Your task to perform on an android device: toggle translation in the chrome app Image 0: 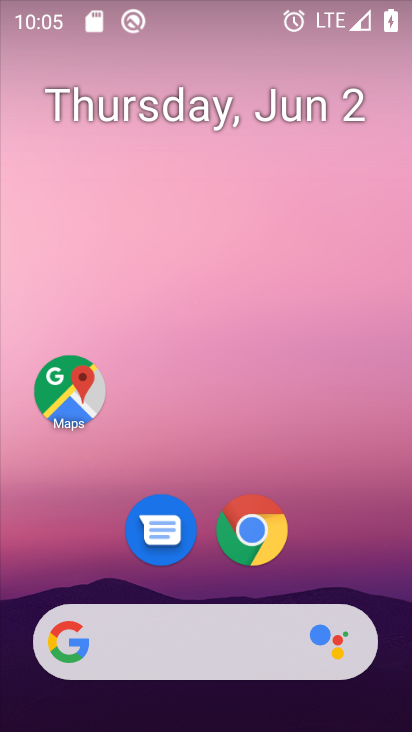
Step 0: click (247, 538)
Your task to perform on an android device: toggle translation in the chrome app Image 1: 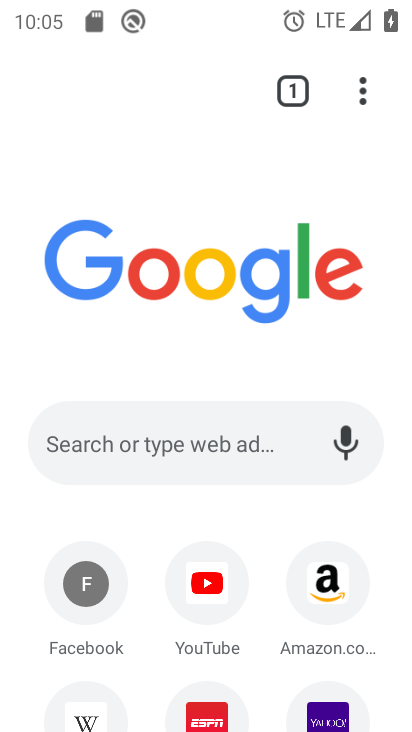
Step 1: click (368, 89)
Your task to perform on an android device: toggle translation in the chrome app Image 2: 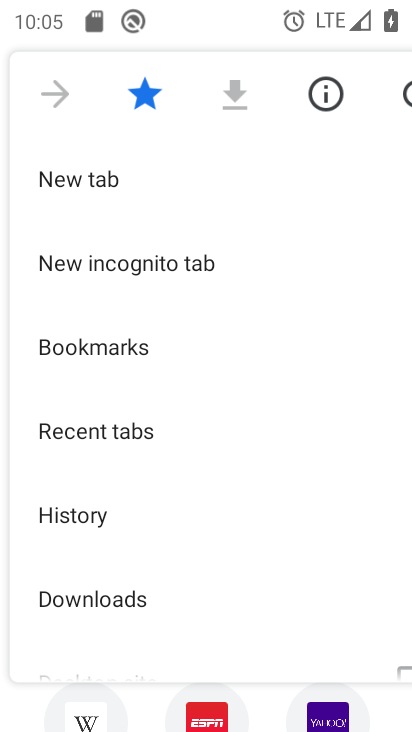
Step 2: drag from (162, 643) to (141, 189)
Your task to perform on an android device: toggle translation in the chrome app Image 3: 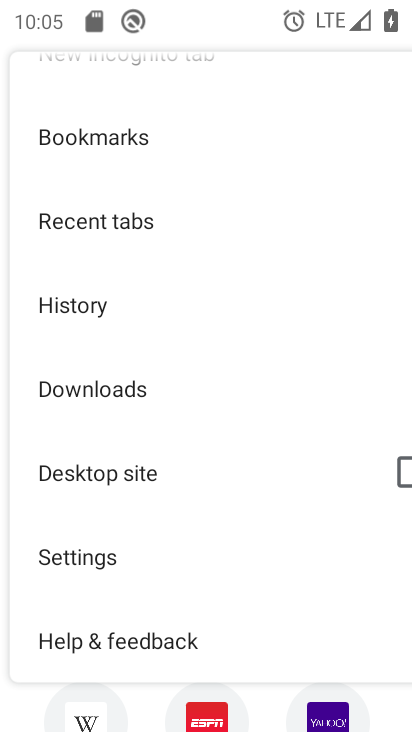
Step 3: click (105, 553)
Your task to perform on an android device: toggle translation in the chrome app Image 4: 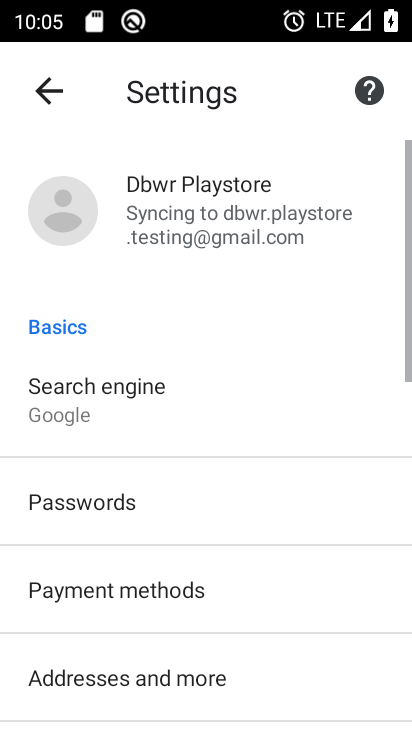
Step 4: drag from (131, 676) to (118, 262)
Your task to perform on an android device: toggle translation in the chrome app Image 5: 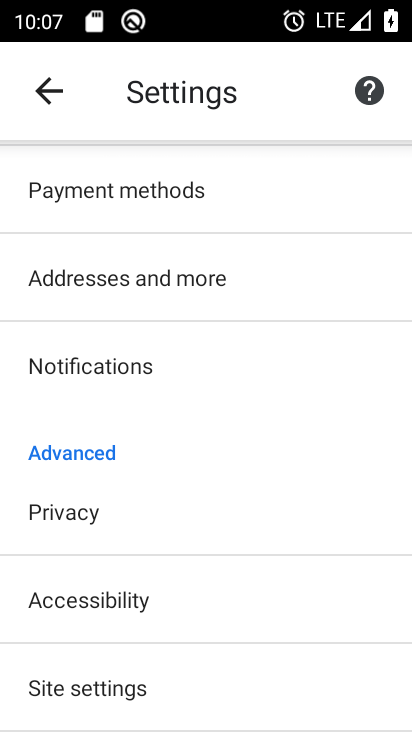
Step 5: drag from (80, 684) to (104, 351)
Your task to perform on an android device: toggle translation in the chrome app Image 6: 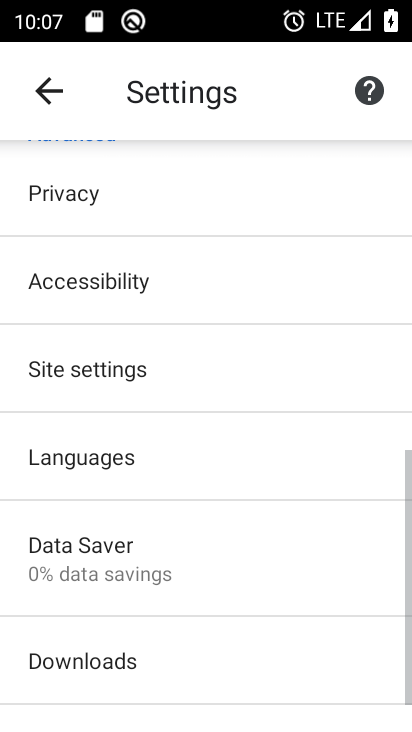
Step 6: click (78, 462)
Your task to perform on an android device: toggle translation in the chrome app Image 7: 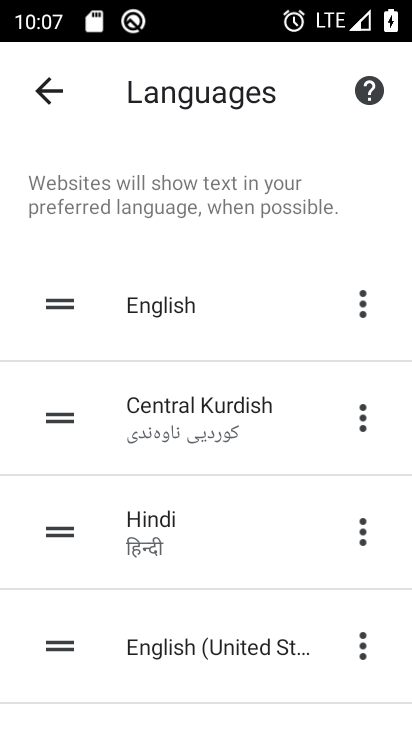
Step 7: drag from (244, 686) to (271, 276)
Your task to perform on an android device: toggle translation in the chrome app Image 8: 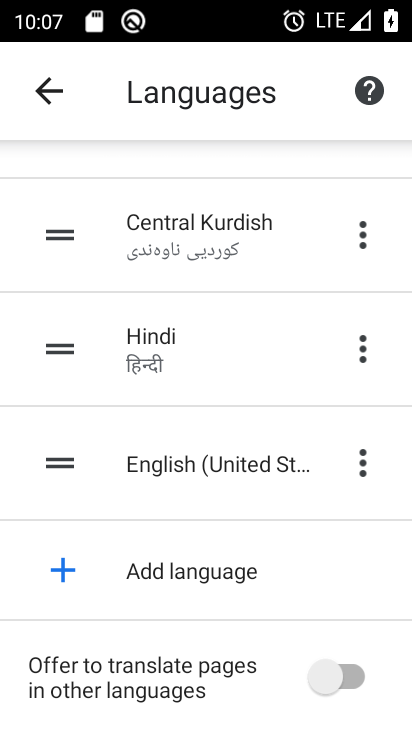
Step 8: click (341, 672)
Your task to perform on an android device: toggle translation in the chrome app Image 9: 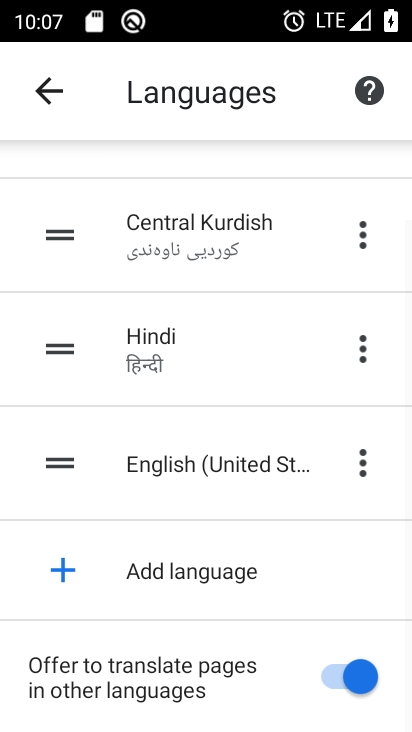
Step 9: task complete